Your task to perform on an android device: Open the Play Movies app and select the watchlist tab. Image 0: 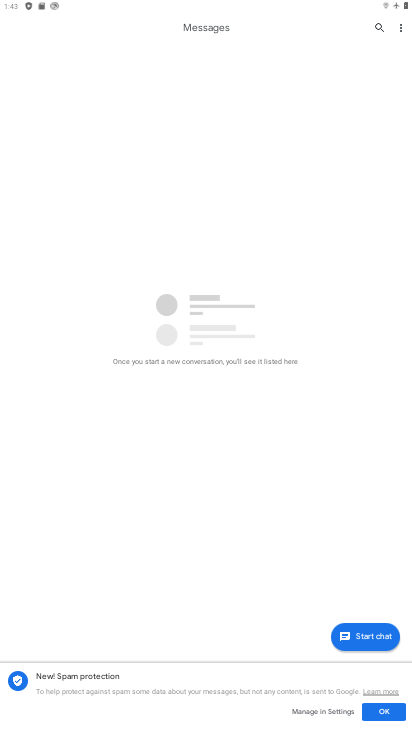
Step 0: press home button
Your task to perform on an android device: Open the Play Movies app and select the watchlist tab. Image 1: 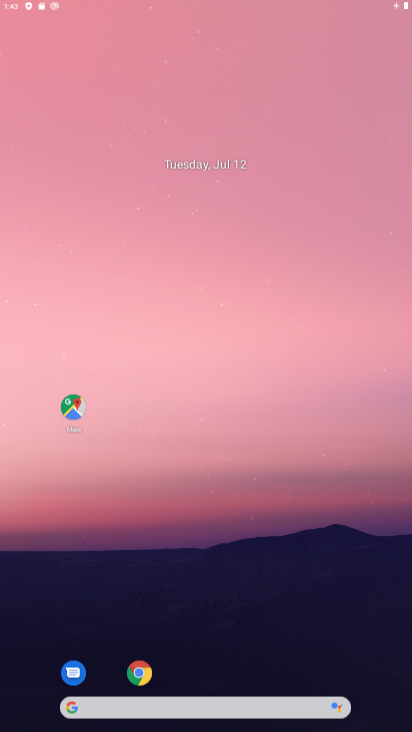
Step 1: drag from (196, 680) to (233, 265)
Your task to perform on an android device: Open the Play Movies app and select the watchlist tab. Image 2: 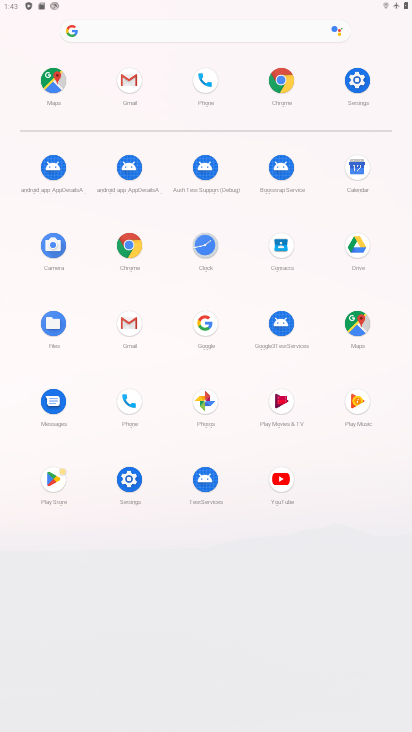
Step 2: click (277, 405)
Your task to perform on an android device: Open the Play Movies app and select the watchlist tab. Image 3: 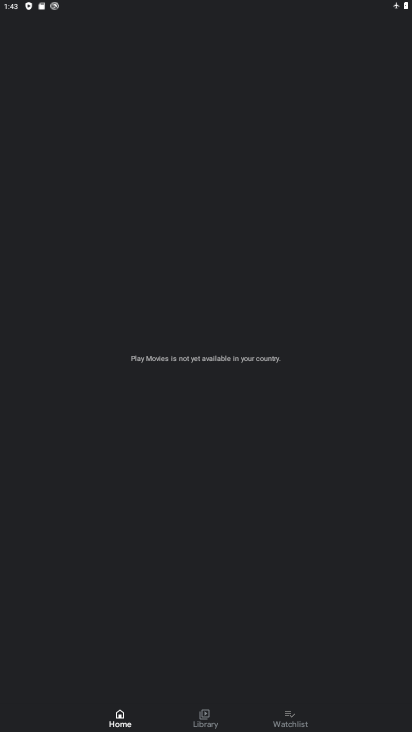
Step 3: click (294, 684)
Your task to perform on an android device: Open the Play Movies app and select the watchlist tab. Image 4: 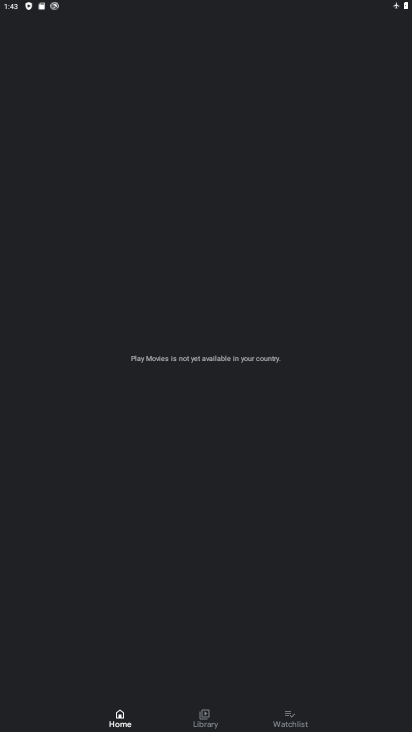
Step 4: click (282, 706)
Your task to perform on an android device: Open the Play Movies app and select the watchlist tab. Image 5: 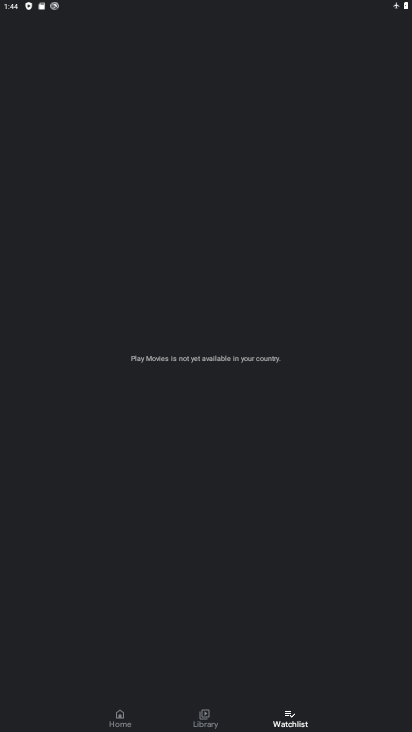
Step 5: task complete